Your task to perform on an android device: toggle notifications settings in the gmail app Image 0: 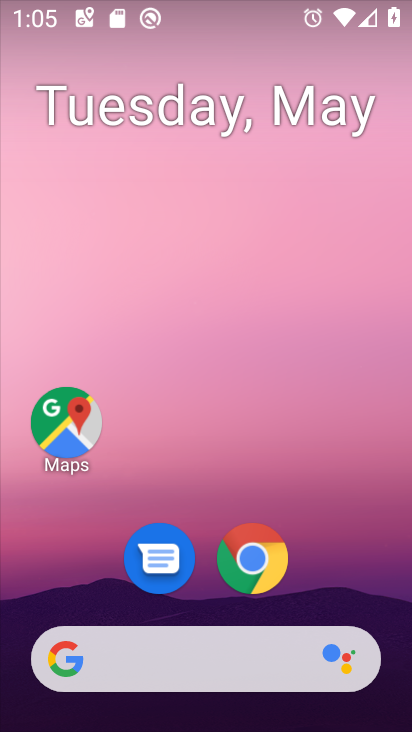
Step 0: drag from (360, 600) to (261, 90)
Your task to perform on an android device: toggle notifications settings in the gmail app Image 1: 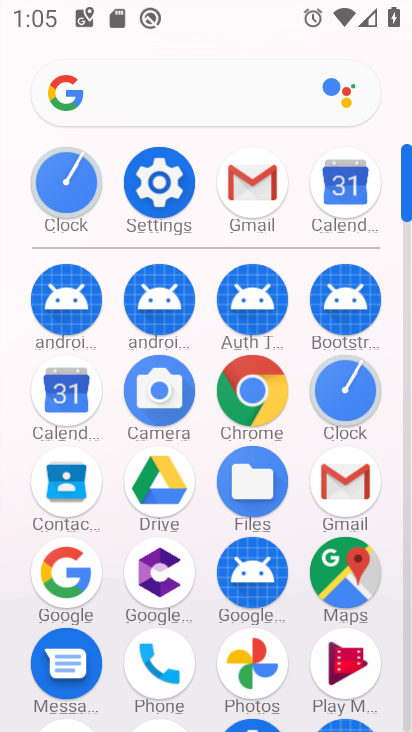
Step 1: click (240, 184)
Your task to perform on an android device: toggle notifications settings in the gmail app Image 2: 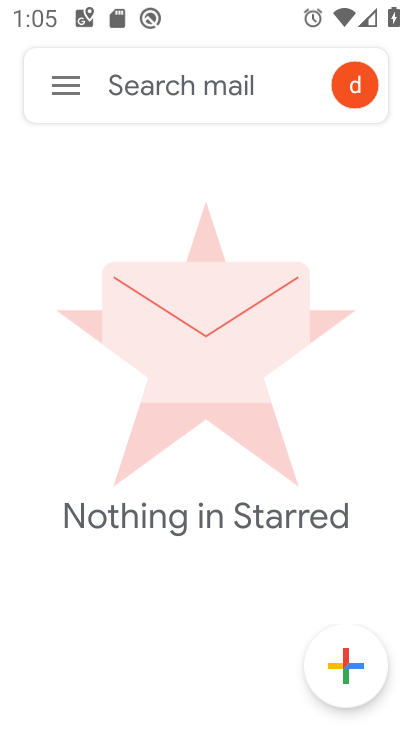
Step 2: click (57, 84)
Your task to perform on an android device: toggle notifications settings in the gmail app Image 3: 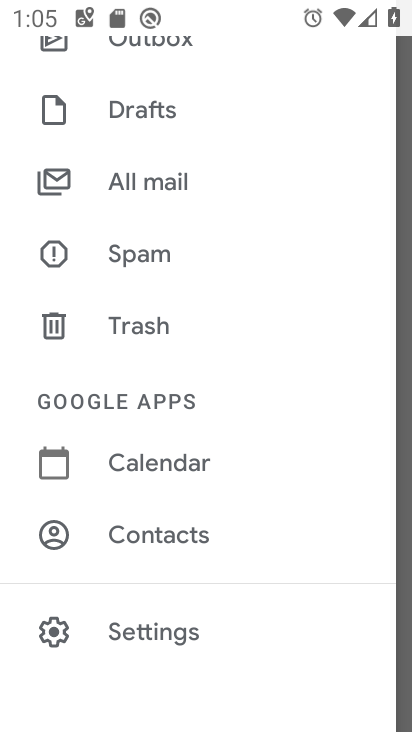
Step 3: click (194, 642)
Your task to perform on an android device: toggle notifications settings in the gmail app Image 4: 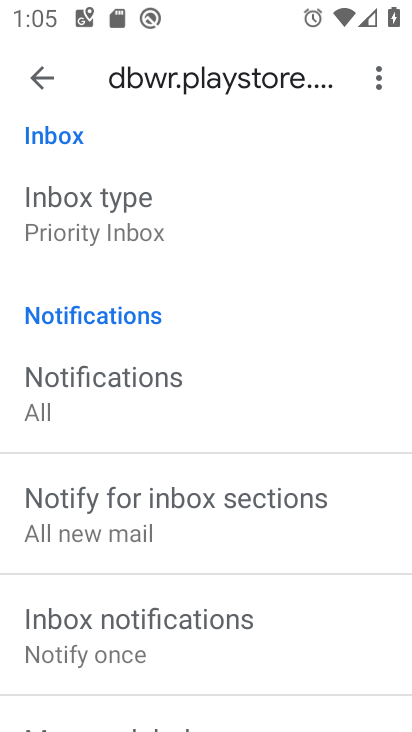
Step 4: drag from (244, 679) to (239, 284)
Your task to perform on an android device: toggle notifications settings in the gmail app Image 5: 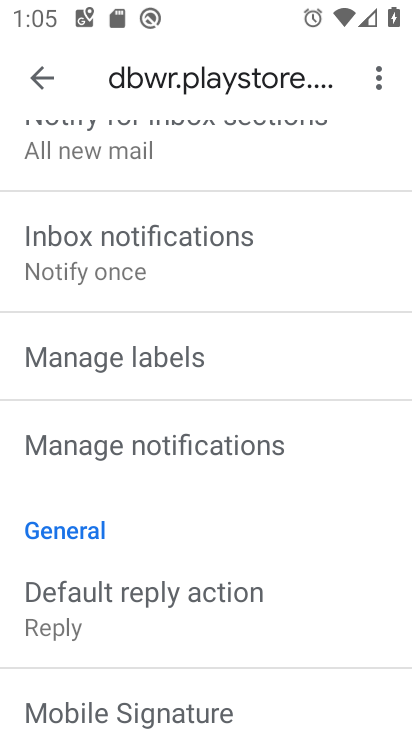
Step 5: click (234, 456)
Your task to perform on an android device: toggle notifications settings in the gmail app Image 6: 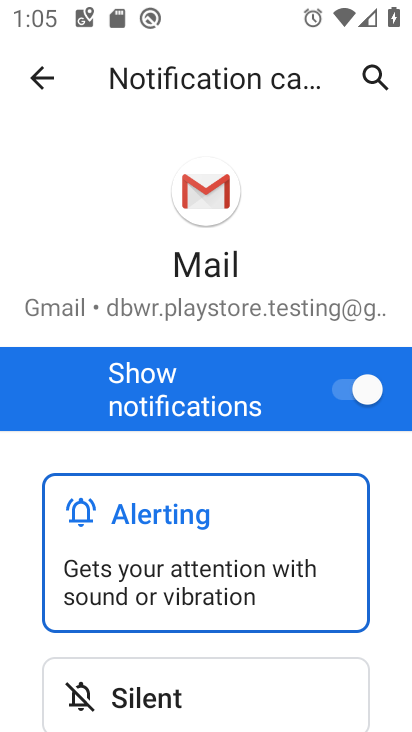
Step 6: drag from (257, 645) to (211, 259)
Your task to perform on an android device: toggle notifications settings in the gmail app Image 7: 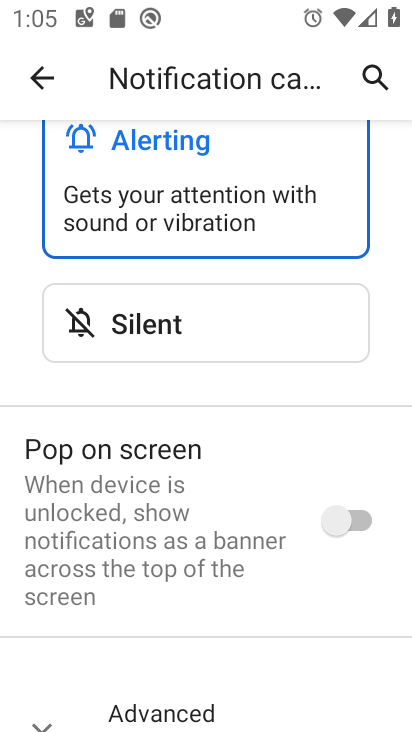
Step 7: click (245, 348)
Your task to perform on an android device: toggle notifications settings in the gmail app Image 8: 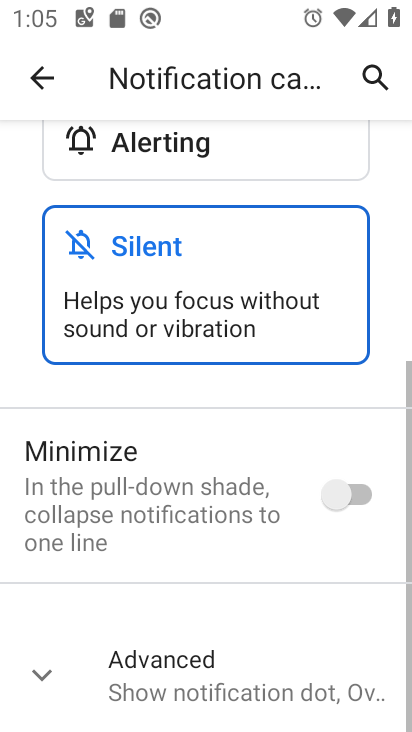
Step 8: click (319, 499)
Your task to perform on an android device: toggle notifications settings in the gmail app Image 9: 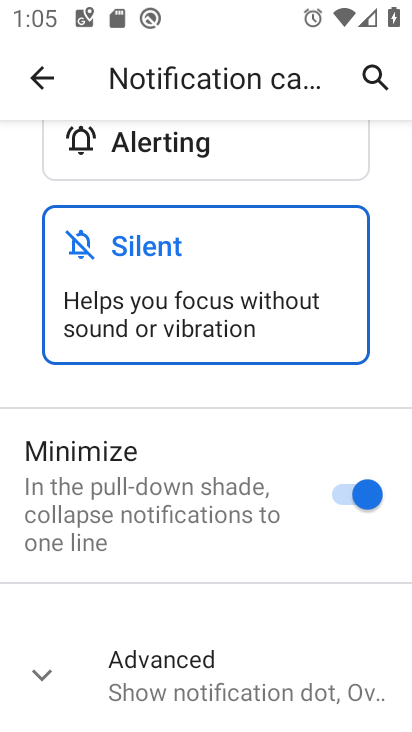
Step 9: task complete